Your task to perform on an android device: check storage Image 0: 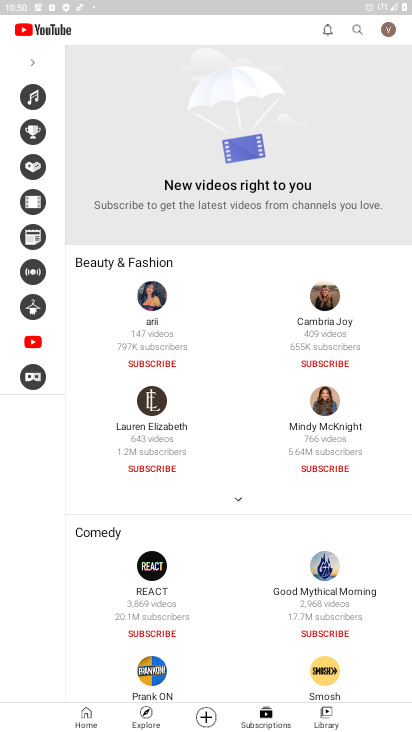
Step 0: drag from (173, 7) to (173, 672)
Your task to perform on an android device: check storage Image 1: 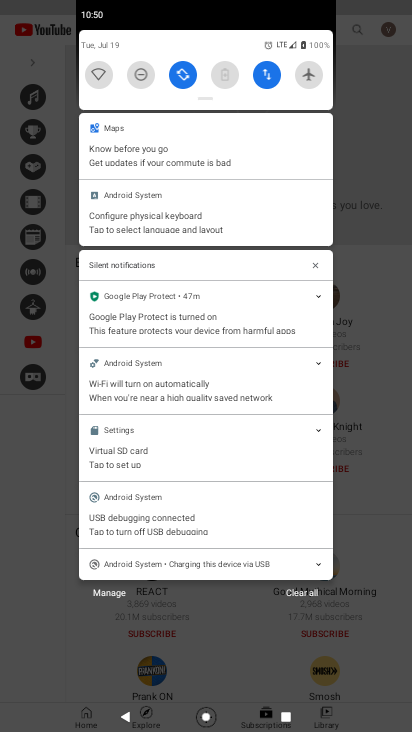
Step 1: drag from (229, 51) to (233, 670)
Your task to perform on an android device: check storage Image 2: 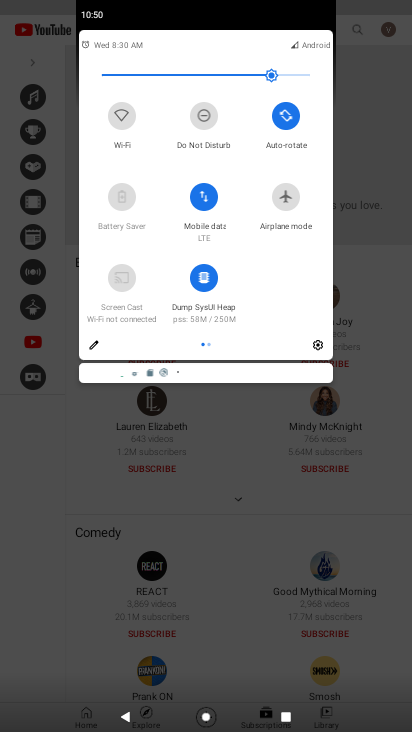
Step 2: click (319, 332)
Your task to perform on an android device: check storage Image 3: 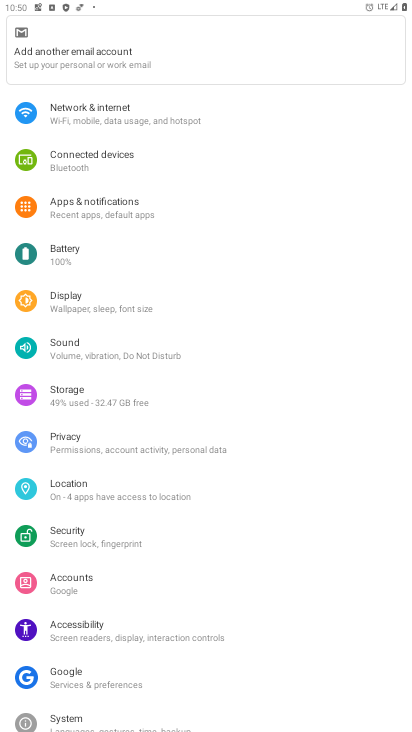
Step 3: click (106, 401)
Your task to perform on an android device: check storage Image 4: 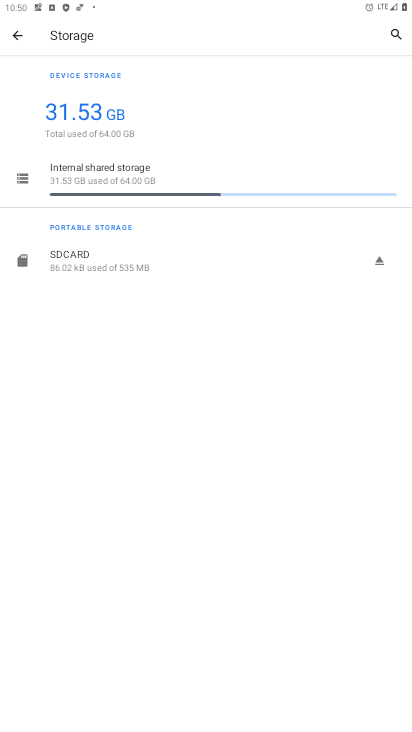
Step 4: task complete